Your task to perform on an android device: turn off smart reply in the gmail app Image 0: 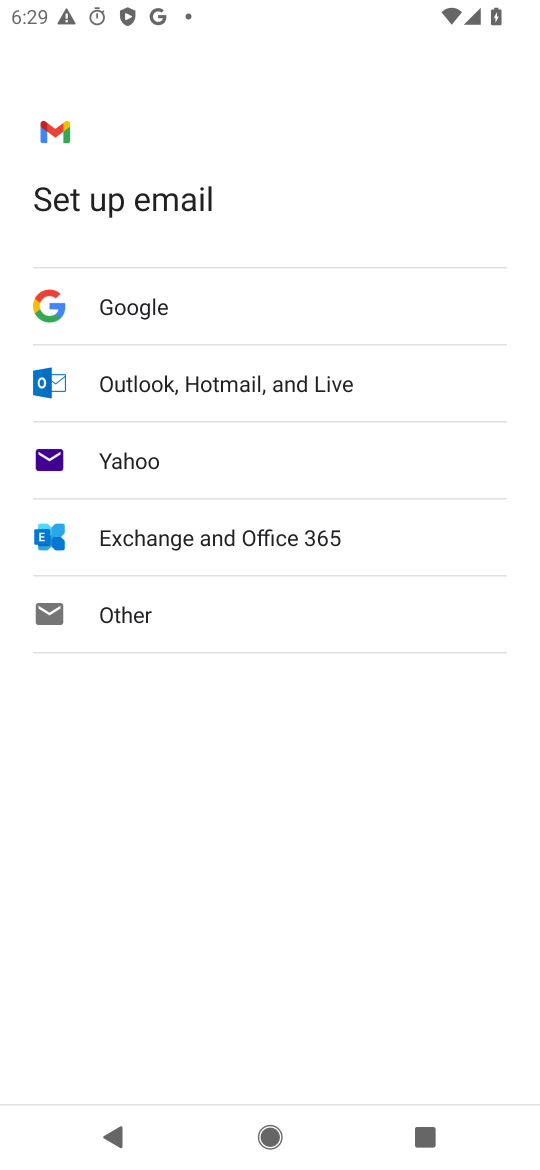
Step 0: press home button
Your task to perform on an android device: turn off smart reply in the gmail app Image 1: 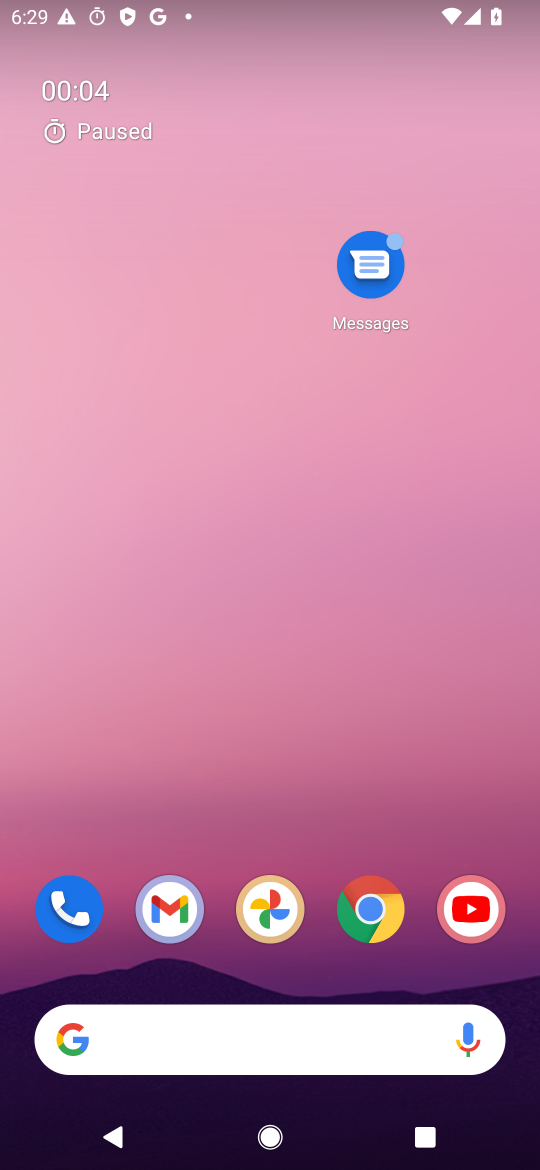
Step 1: click (170, 909)
Your task to perform on an android device: turn off smart reply in the gmail app Image 2: 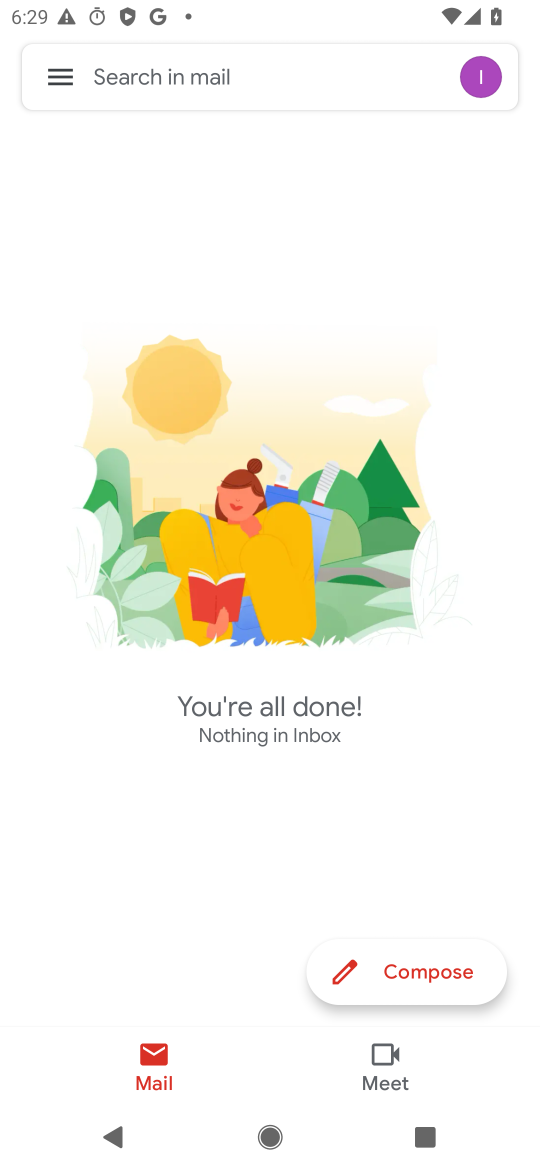
Step 2: click (52, 73)
Your task to perform on an android device: turn off smart reply in the gmail app Image 3: 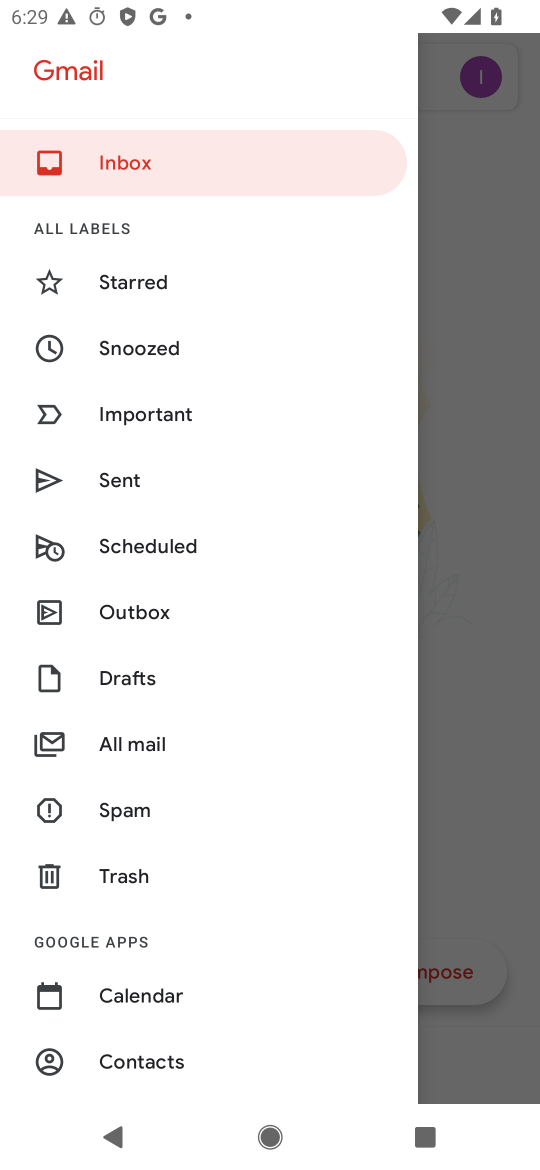
Step 3: drag from (250, 1027) to (312, 189)
Your task to perform on an android device: turn off smart reply in the gmail app Image 4: 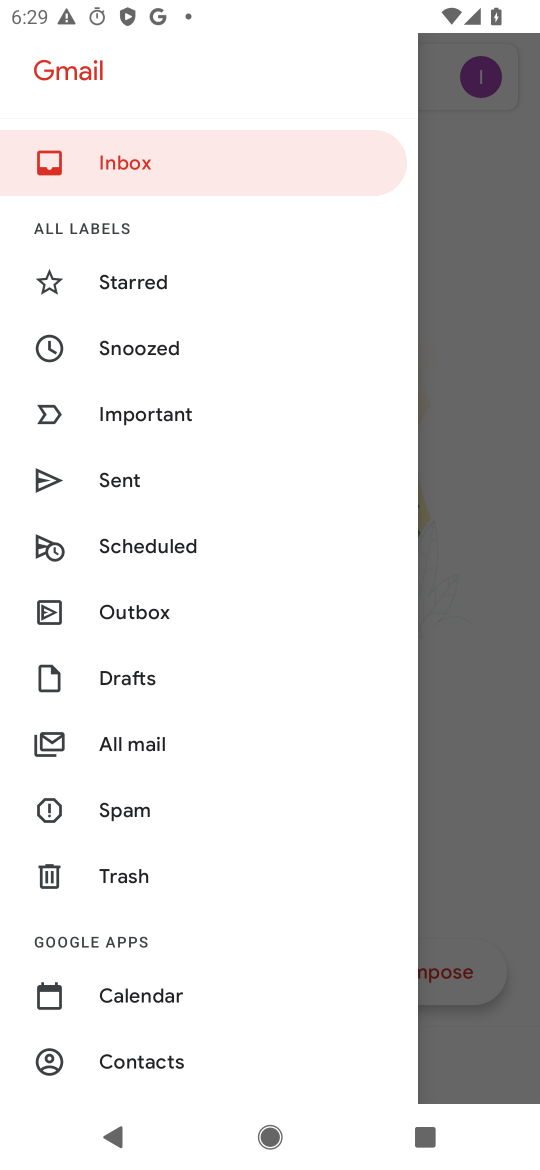
Step 4: drag from (246, 947) to (451, 170)
Your task to perform on an android device: turn off smart reply in the gmail app Image 5: 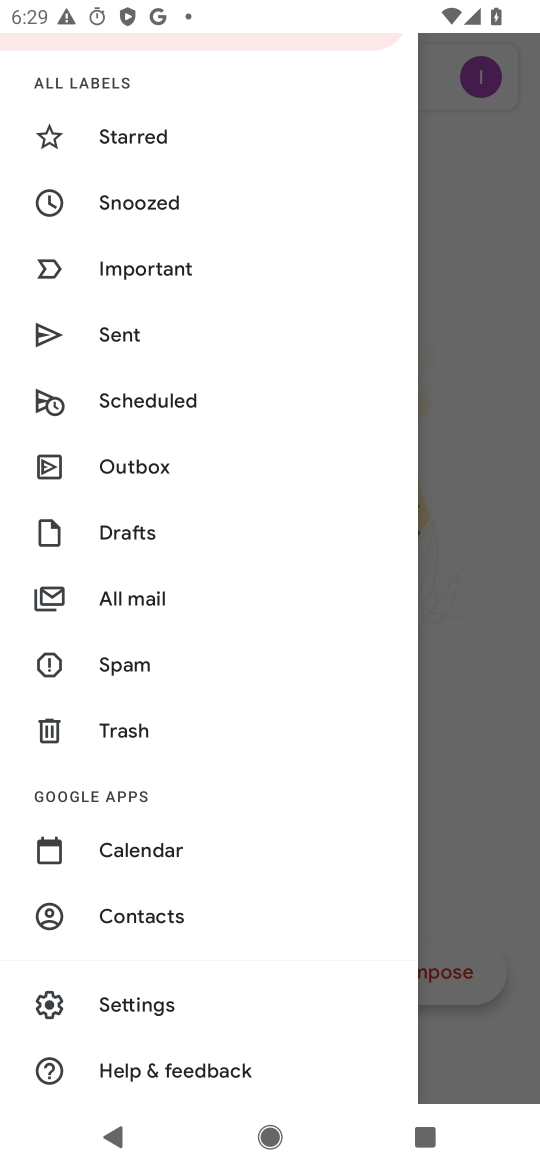
Step 5: click (137, 1000)
Your task to perform on an android device: turn off smart reply in the gmail app Image 6: 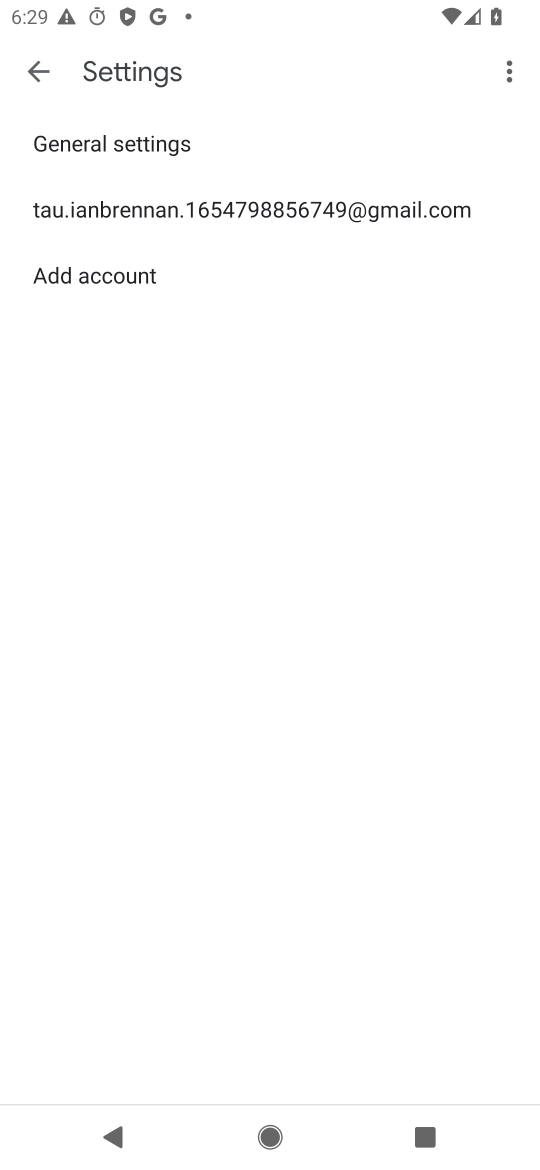
Step 6: click (393, 217)
Your task to perform on an android device: turn off smart reply in the gmail app Image 7: 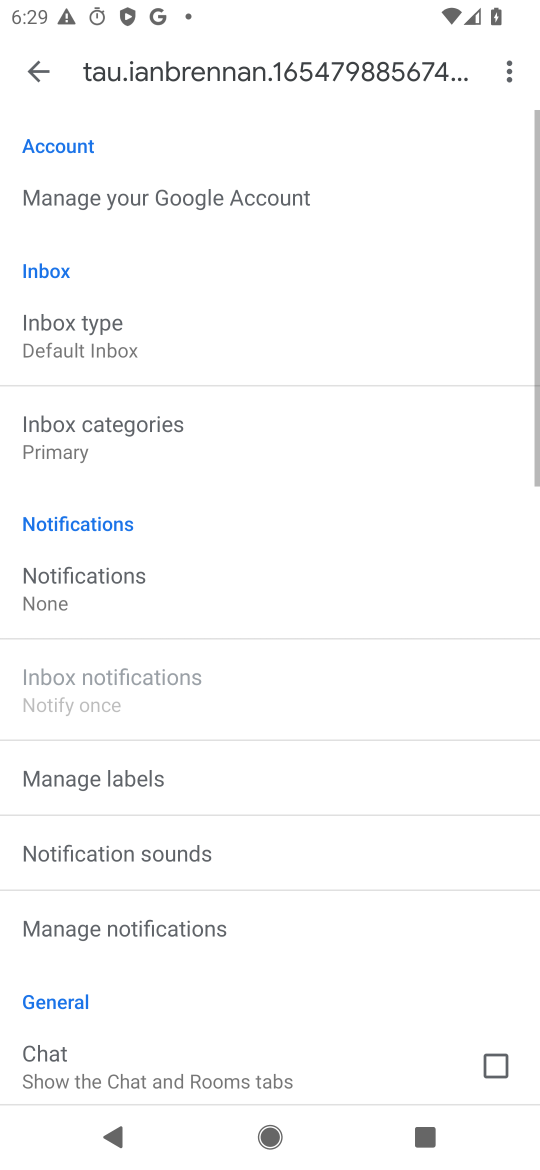
Step 7: task complete